Your task to perform on an android device: check battery use Image 0: 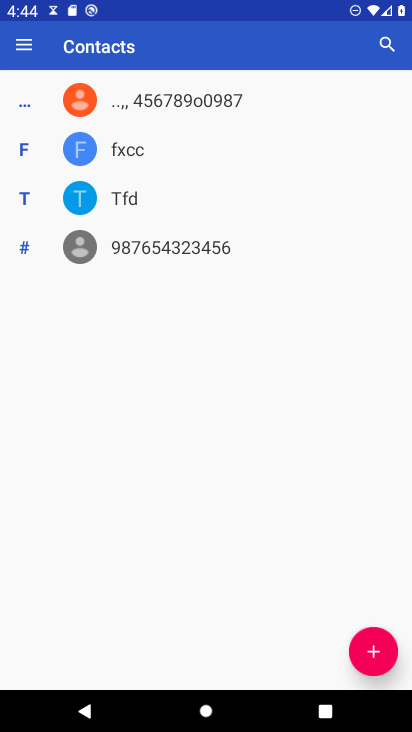
Step 0: press home button
Your task to perform on an android device: check battery use Image 1: 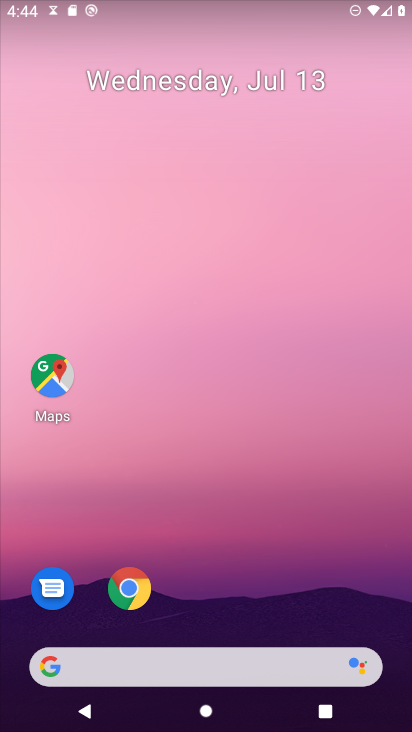
Step 1: drag from (271, 666) to (186, 251)
Your task to perform on an android device: check battery use Image 2: 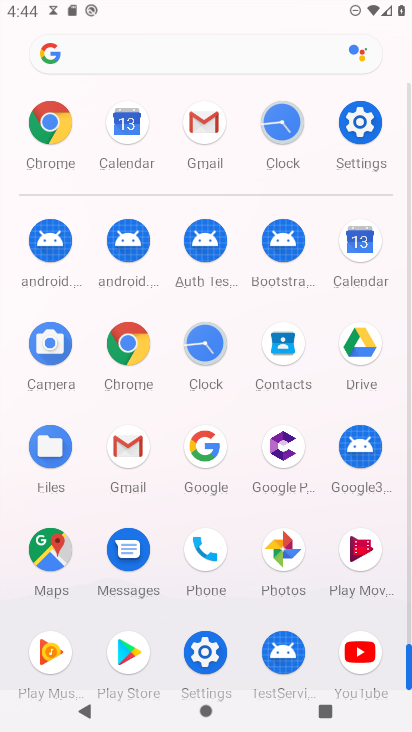
Step 2: click (206, 640)
Your task to perform on an android device: check battery use Image 3: 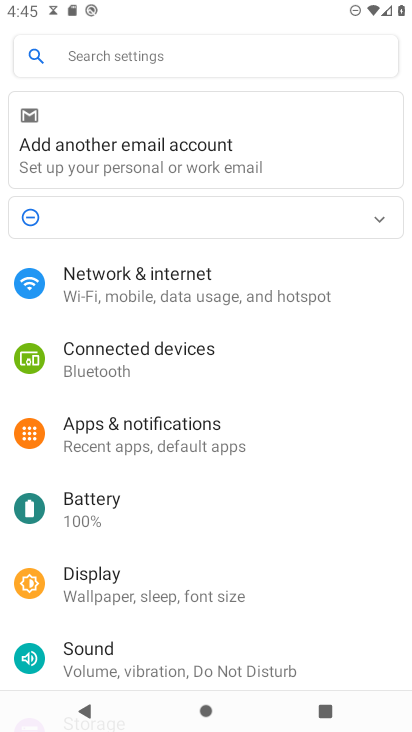
Step 3: drag from (160, 533) to (121, 258)
Your task to perform on an android device: check battery use Image 4: 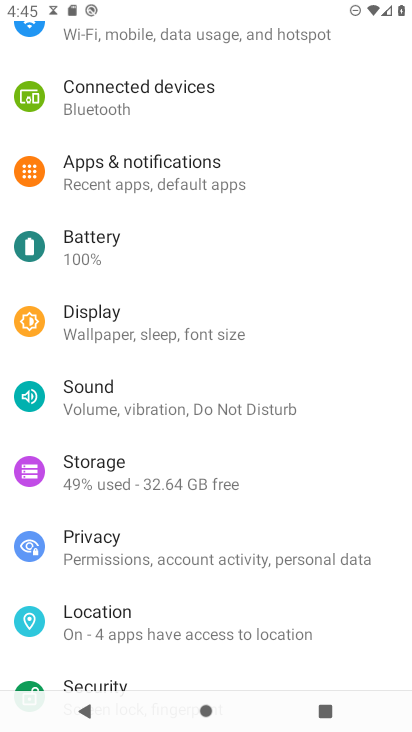
Step 4: click (88, 247)
Your task to perform on an android device: check battery use Image 5: 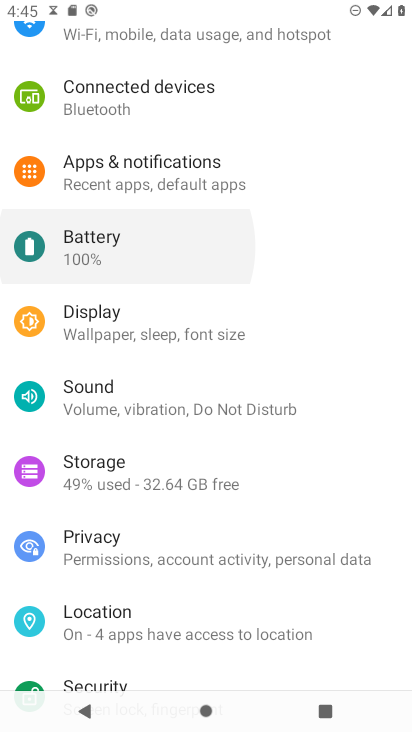
Step 5: click (87, 244)
Your task to perform on an android device: check battery use Image 6: 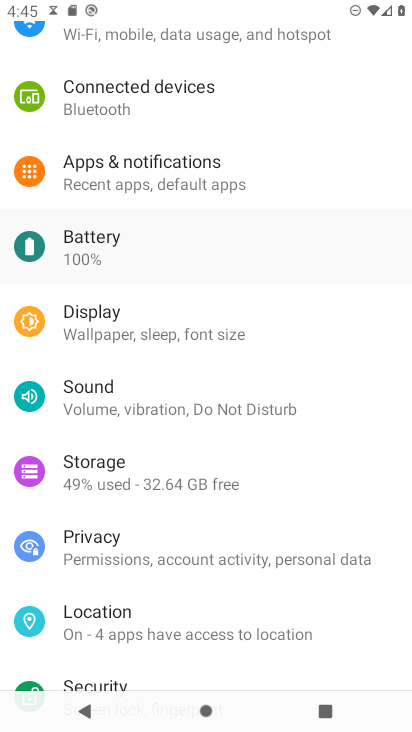
Step 6: click (87, 244)
Your task to perform on an android device: check battery use Image 7: 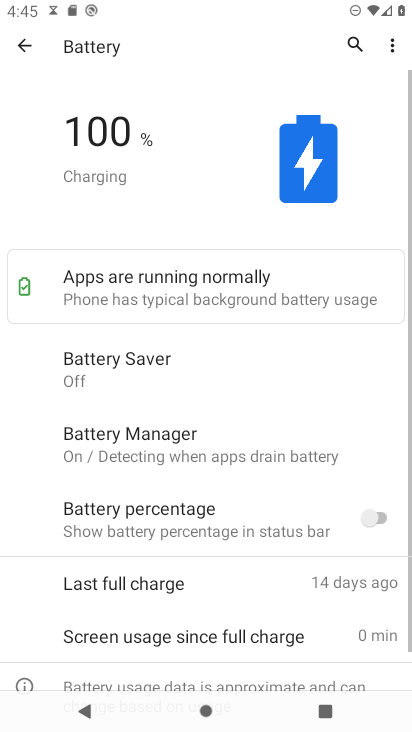
Step 7: task complete